Your task to perform on an android device: Show me productivity apps on the Play Store Image 0: 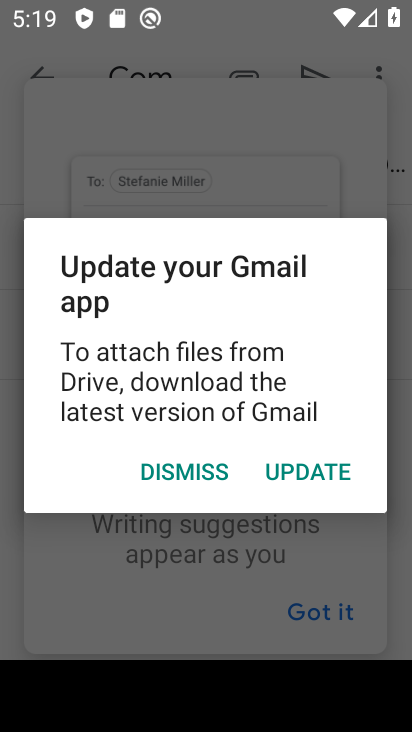
Step 0: press home button
Your task to perform on an android device: Show me productivity apps on the Play Store Image 1: 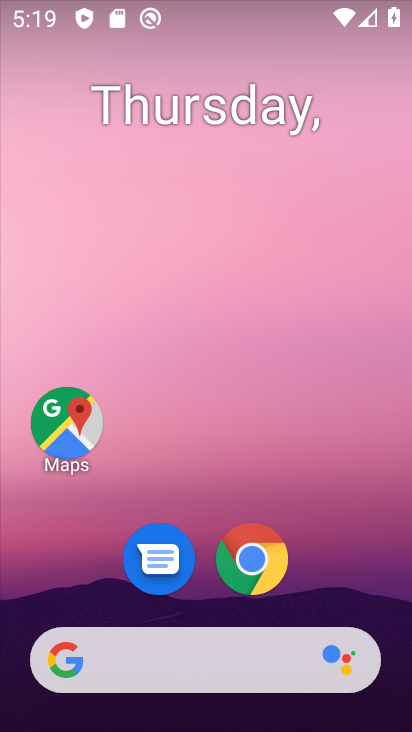
Step 1: drag from (206, 535) to (243, 5)
Your task to perform on an android device: Show me productivity apps on the Play Store Image 2: 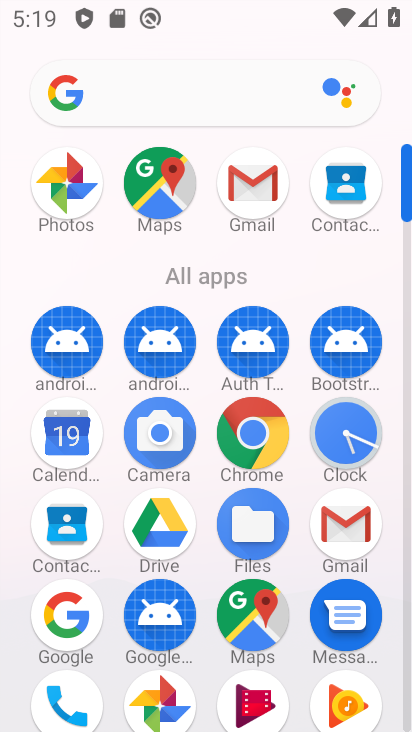
Step 2: drag from (115, 596) to (129, 330)
Your task to perform on an android device: Show me productivity apps on the Play Store Image 3: 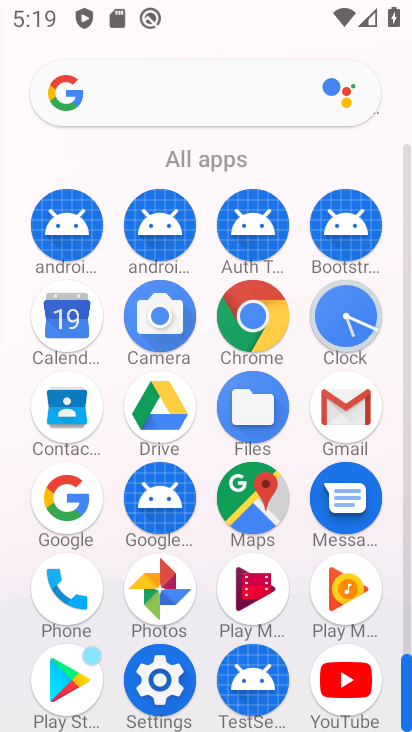
Step 3: click (64, 674)
Your task to perform on an android device: Show me productivity apps on the Play Store Image 4: 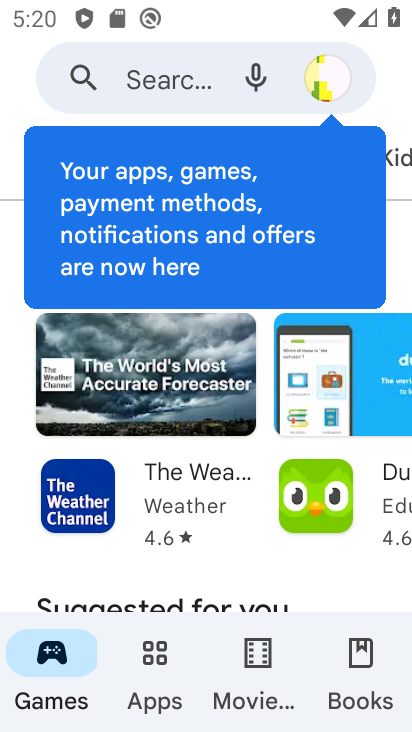
Step 4: click (144, 656)
Your task to perform on an android device: Show me productivity apps on the Play Store Image 5: 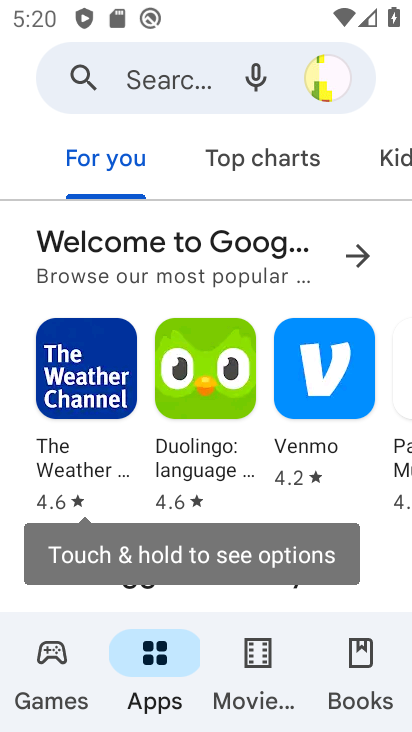
Step 5: drag from (351, 167) to (1, 168)
Your task to perform on an android device: Show me productivity apps on the Play Store Image 6: 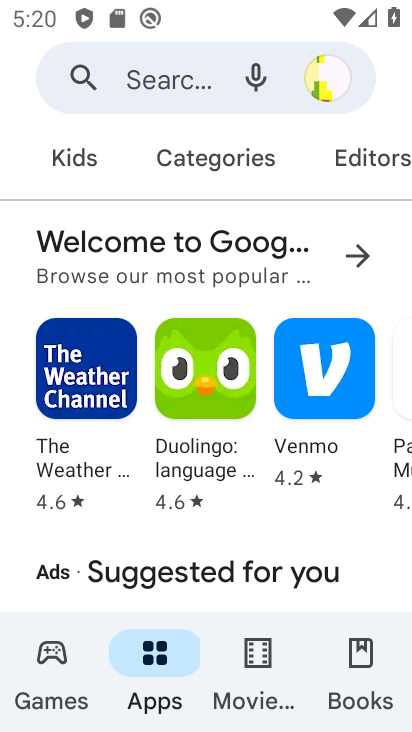
Step 6: click (200, 166)
Your task to perform on an android device: Show me productivity apps on the Play Store Image 7: 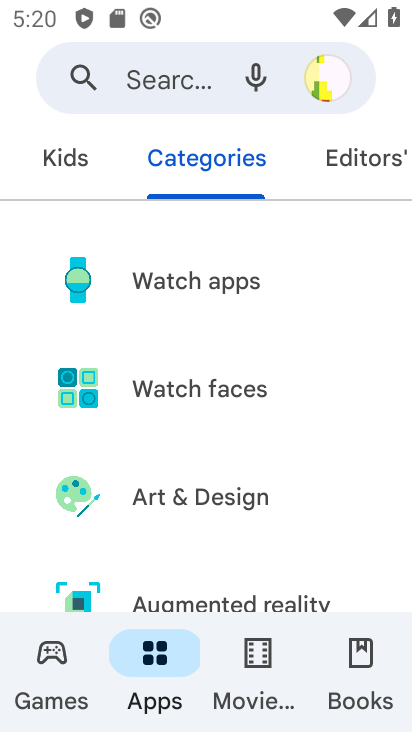
Step 7: drag from (194, 539) to (243, 174)
Your task to perform on an android device: Show me productivity apps on the Play Store Image 8: 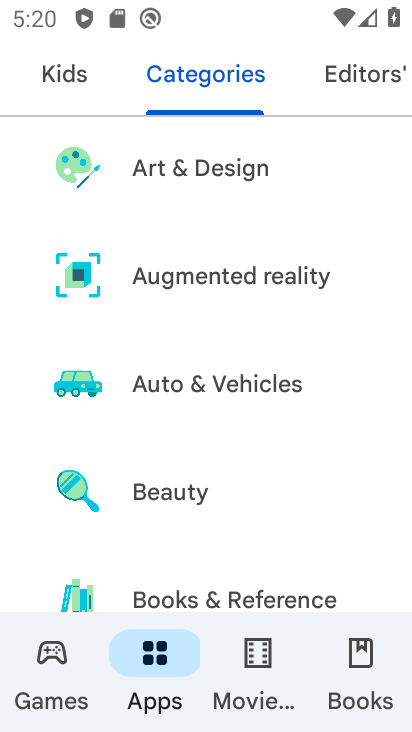
Step 8: drag from (226, 547) to (279, 50)
Your task to perform on an android device: Show me productivity apps on the Play Store Image 9: 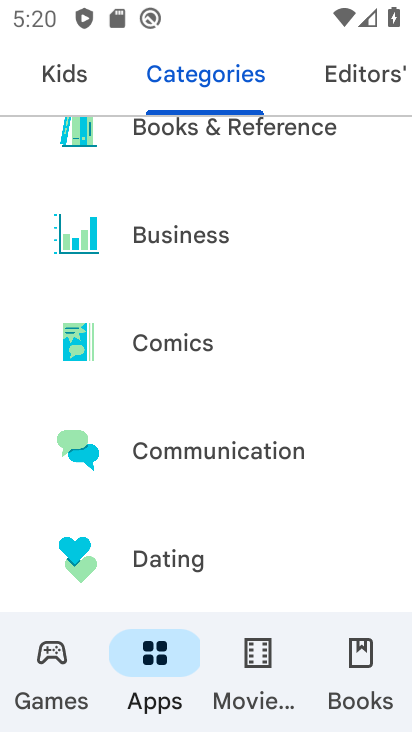
Step 9: drag from (227, 504) to (282, 110)
Your task to perform on an android device: Show me productivity apps on the Play Store Image 10: 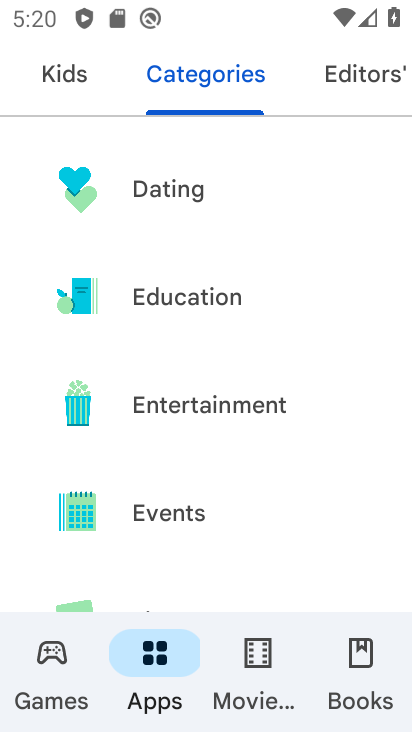
Step 10: drag from (240, 537) to (260, 105)
Your task to perform on an android device: Show me productivity apps on the Play Store Image 11: 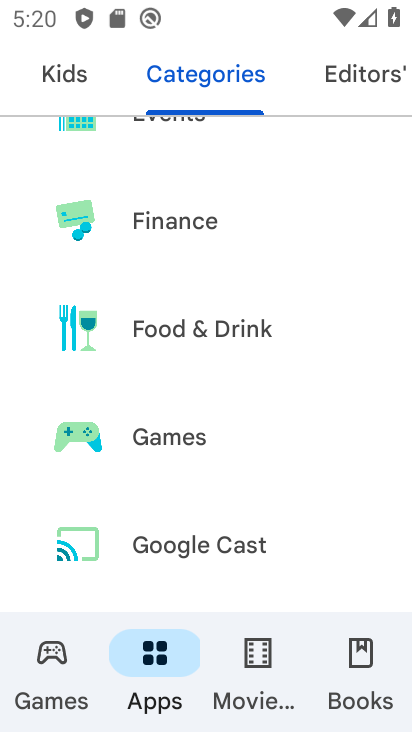
Step 11: drag from (216, 504) to (240, 1)
Your task to perform on an android device: Show me productivity apps on the Play Store Image 12: 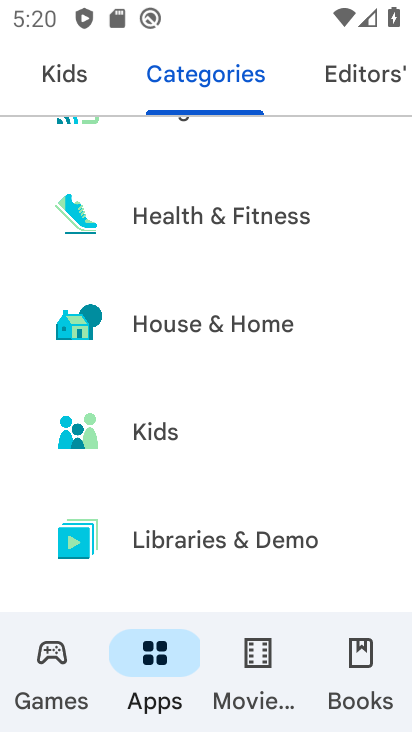
Step 12: drag from (189, 500) to (226, 139)
Your task to perform on an android device: Show me productivity apps on the Play Store Image 13: 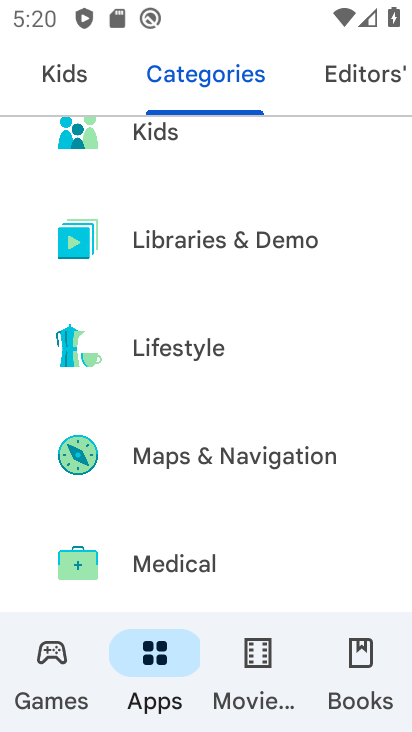
Step 13: drag from (212, 525) to (224, 203)
Your task to perform on an android device: Show me productivity apps on the Play Store Image 14: 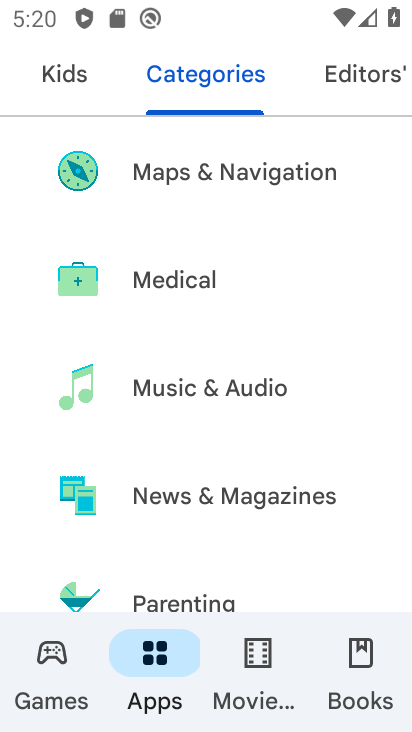
Step 14: drag from (196, 561) to (255, 188)
Your task to perform on an android device: Show me productivity apps on the Play Store Image 15: 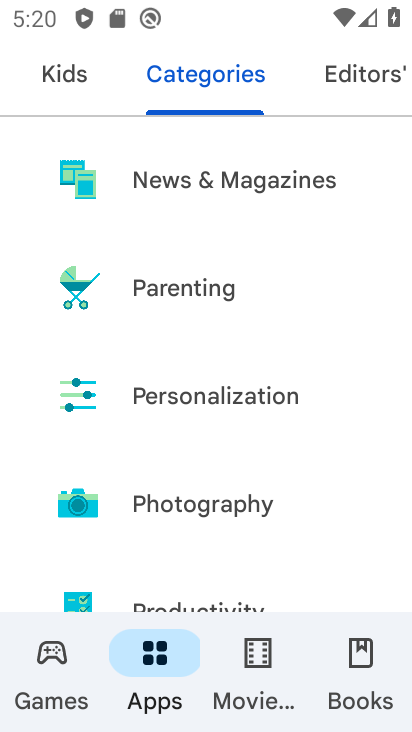
Step 15: drag from (243, 494) to (263, 162)
Your task to perform on an android device: Show me productivity apps on the Play Store Image 16: 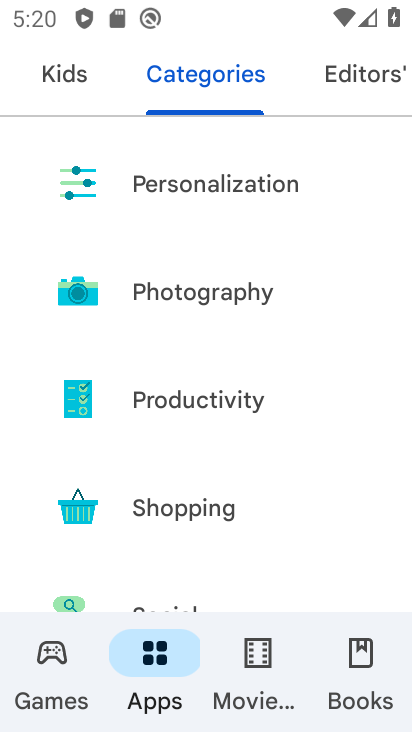
Step 16: click (232, 406)
Your task to perform on an android device: Show me productivity apps on the Play Store Image 17: 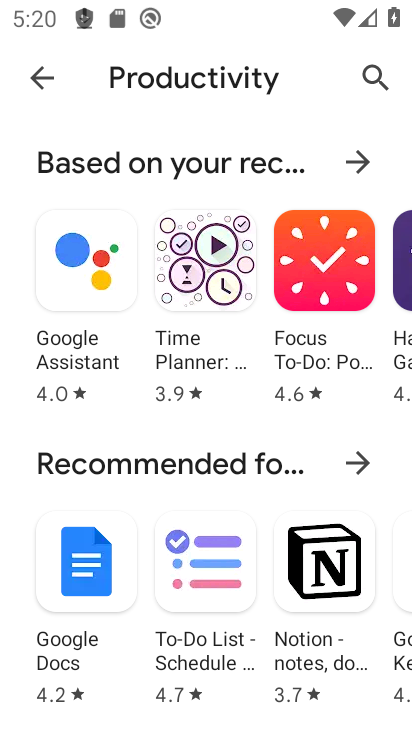
Step 17: task complete